Your task to perform on an android device: turn on translation in the chrome app Image 0: 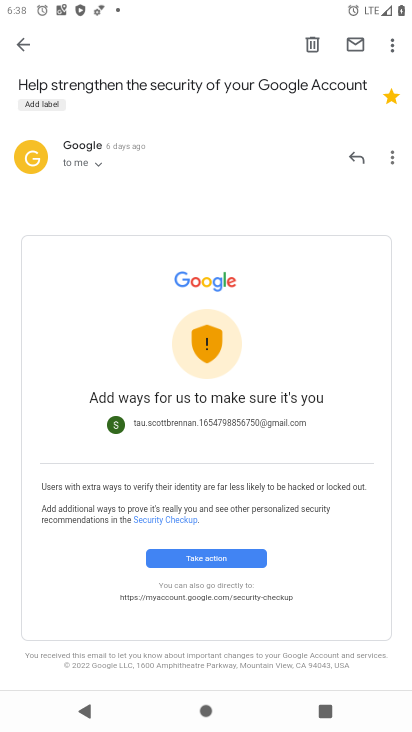
Step 0: press home button
Your task to perform on an android device: turn on translation in the chrome app Image 1: 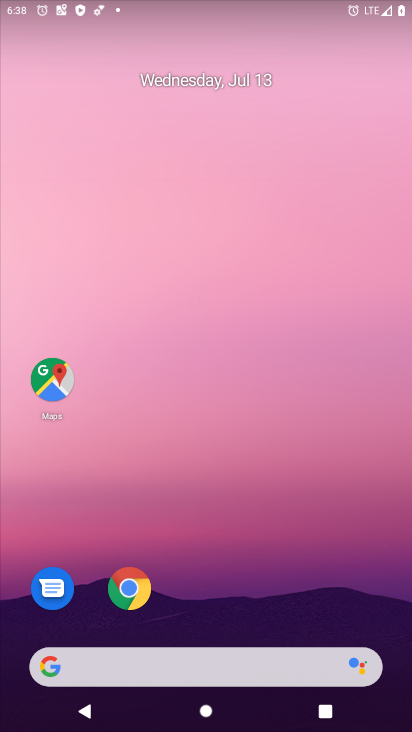
Step 1: click (134, 582)
Your task to perform on an android device: turn on translation in the chrome app Image 2: 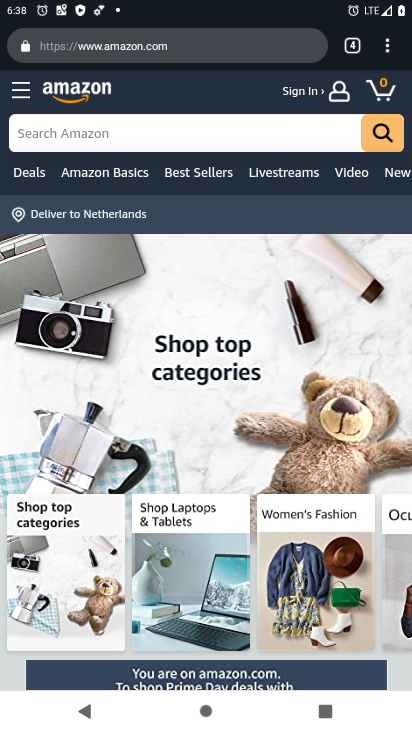
Step 2: click (391, 49)
Your task to perform on an android device: turn on translation in the chrome app Image 3: 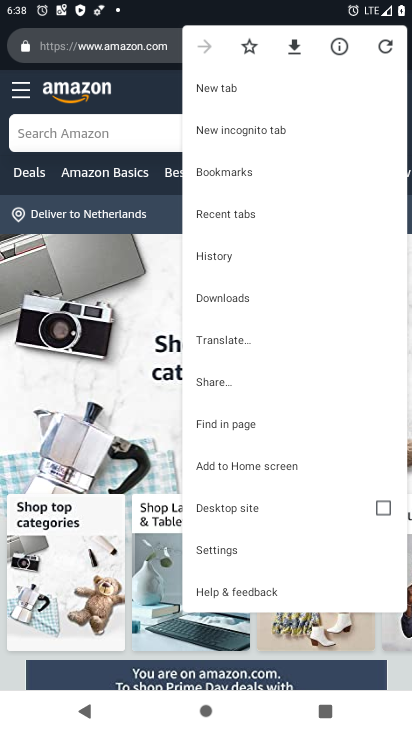
Step 3: click (220, 552)
Your task to perform on an android device: turn on translation in the chrome app Image 4: 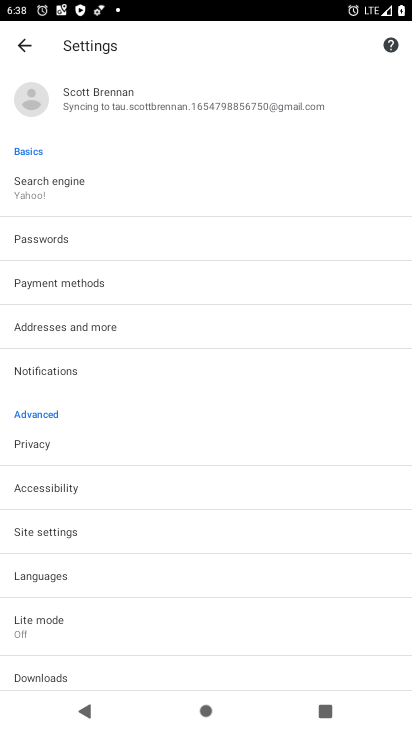
Step 4: click (50, 578)
Your task to perform on an android device: turn on translation in the chrome app Image 5: 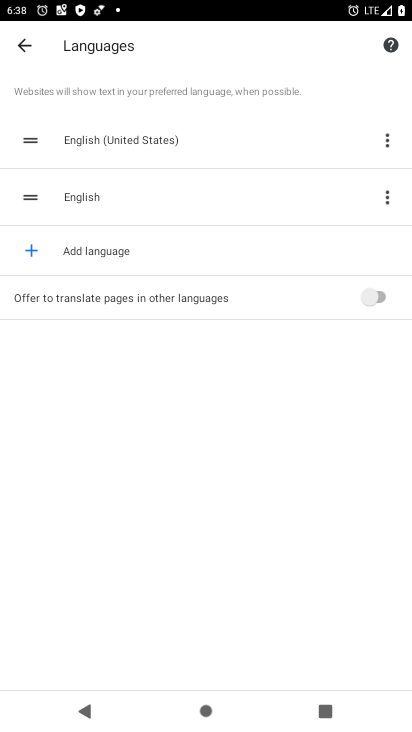
Step 5: click (379, 305)
Your task to perform on an android device: turn on translation in the chrome app Image 6: 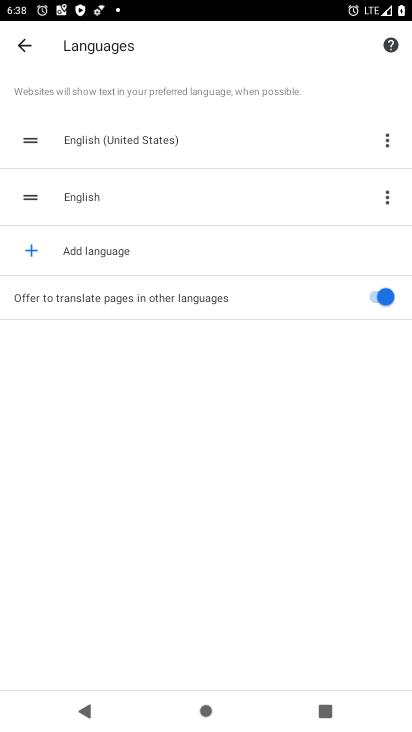
Step 6: task complete